Your task to perform on an android device: turn on the 24-hour format for clock Image 0: 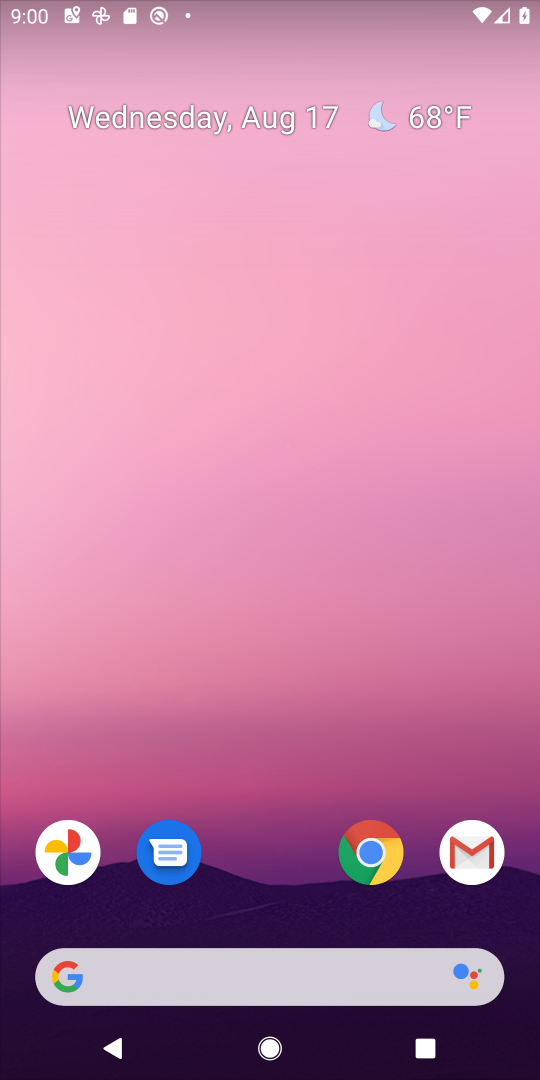
Step 0: drag from (268, 905) to (278, 368)
Your task to perform on an android device: turn on the 24-hour format for clock Image 1: 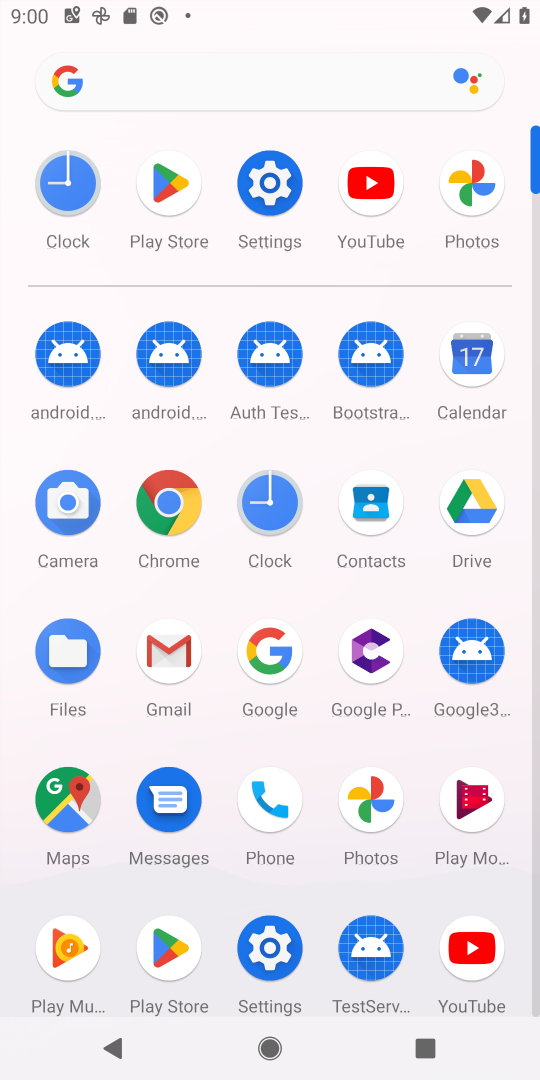
Step 1: click (264, 494)
Your task to perform on an android device: turn on the 24-hour format for clock Image 2: 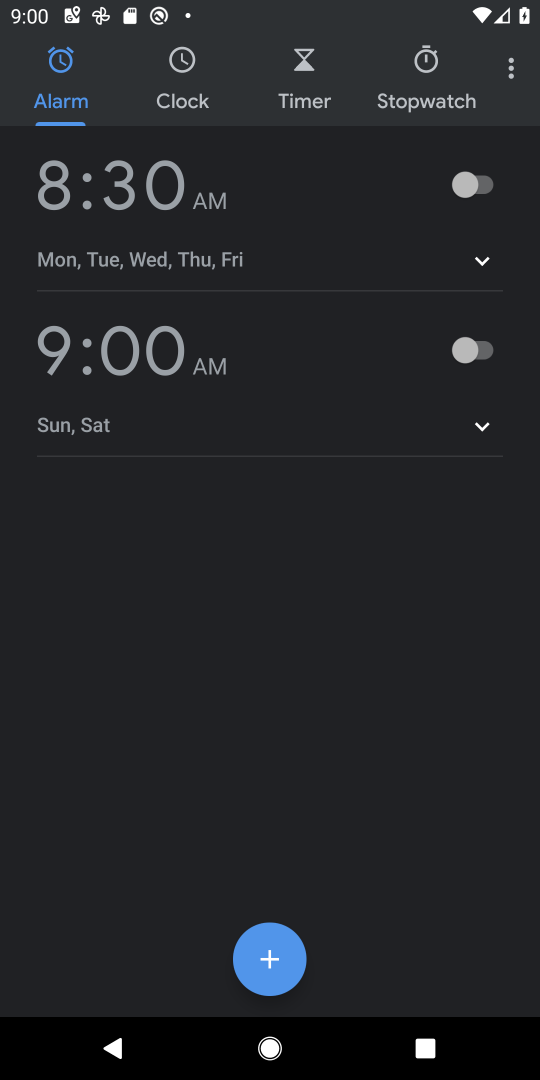
Step 2: click (512, 72)
Your task to perform on an android device: turn on the 24-hour format for clock Image 3: 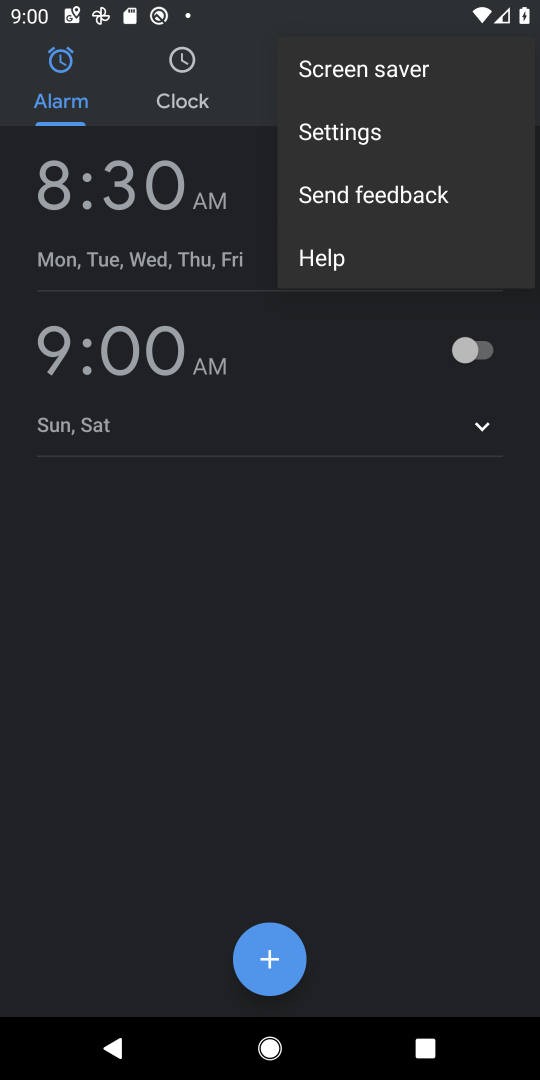
Step 3: click (375, 132)
Your task to perform on an android device: turn on the 24-hour format for clock Image 4: 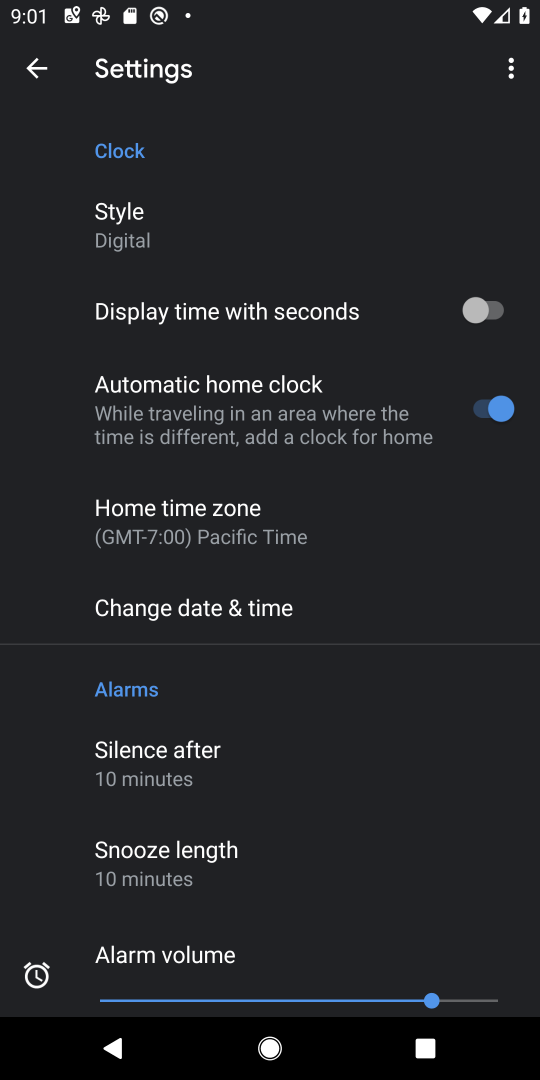
Step 4: click (222, 610)
Your task to perform on an android device: turn on the 24-hour format for clock Image 5: 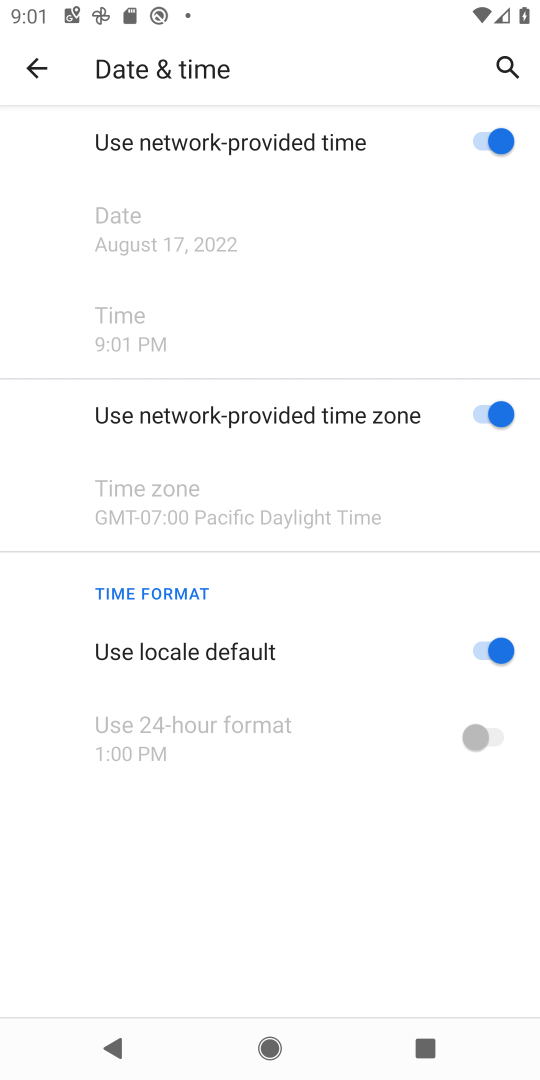
Step 5: click (491, 656)
Your task to perform on an android device: turn on the 24-hour format for clock Image 6: 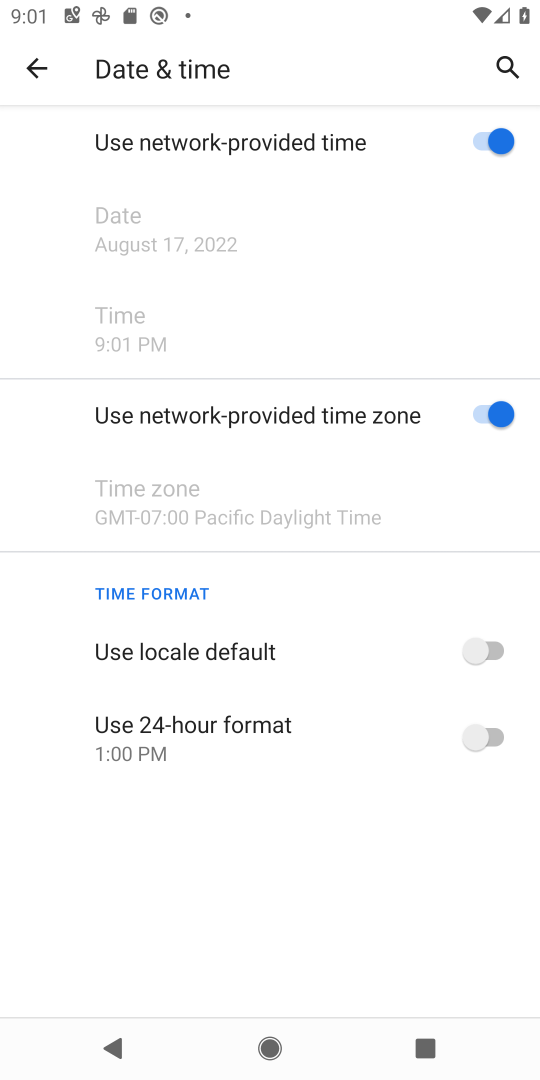
Step 6: click (475, 734)
Your task to perform on an android device: turn on the 24-hour format for clock Image 7: 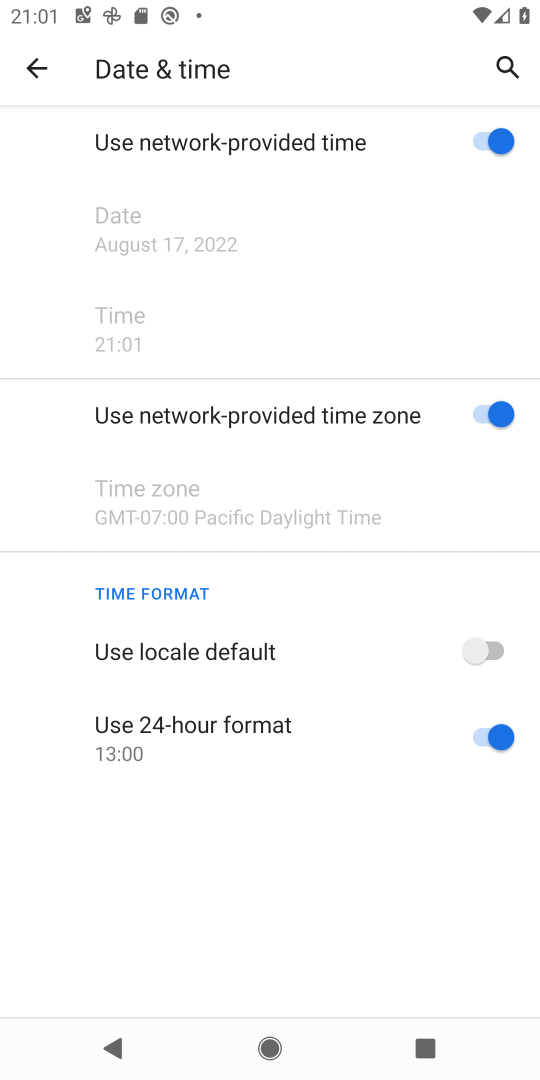
Step 7: task complete